Your task to perform on an android device: turn notification dots off Image 0: 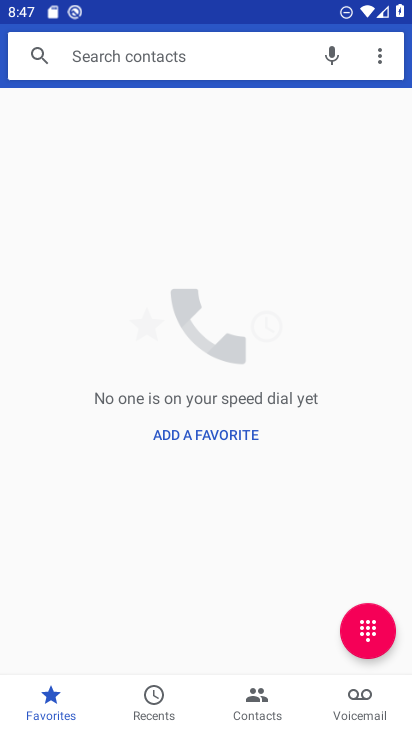
Step 0: press home button
Your task to perform on an android device: turn notification dots off Image 1: 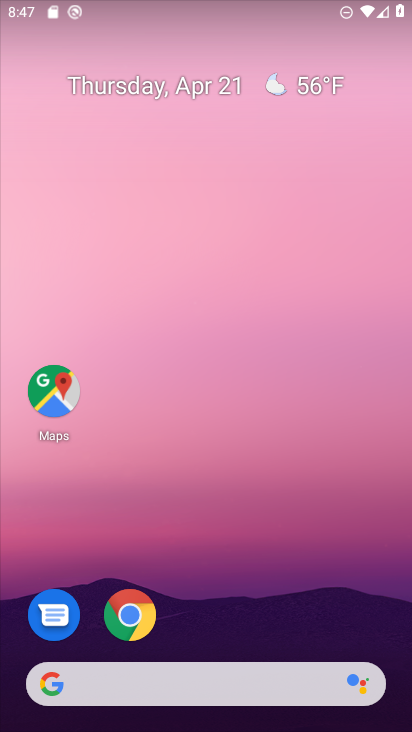
Step 1: drag from (296, 380) to (300, 128)
Your task to perform on an android device: turn notification dots off Image 2: 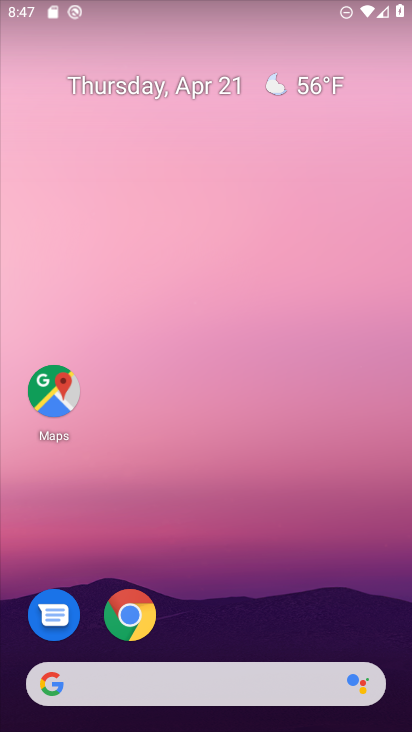
Step 2: drag from (325, 415) to (302, 6)
Your task to perform on an android device: turn notification dots off Image 3: 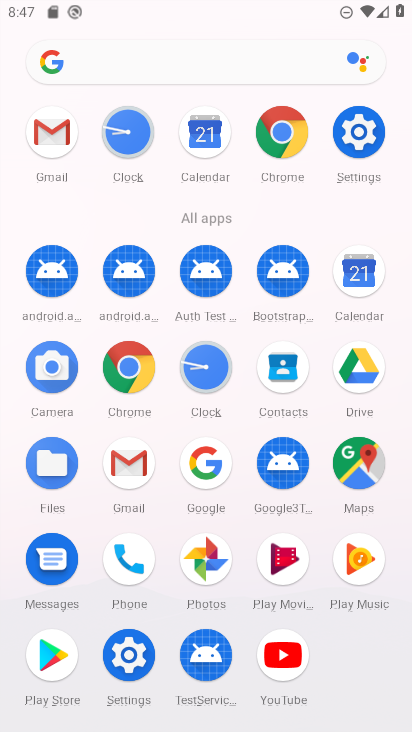
Step 3: click (382, 126)
Your task to perform on an android device: turn notification dots off Image 4: 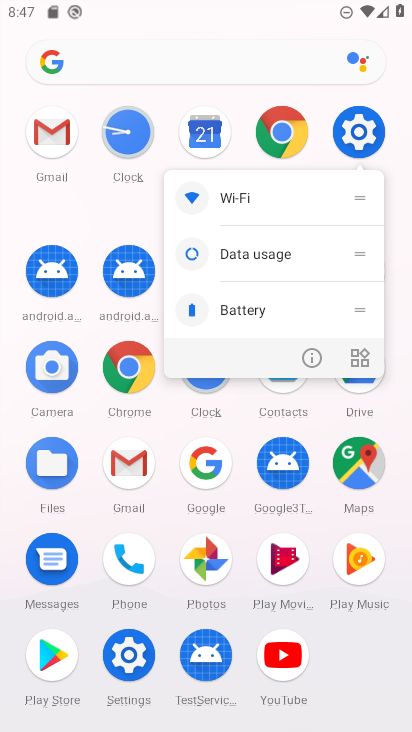
Step 4: click (382, 126)
Your task to perform on an android device: turn notification dots off Image 5: 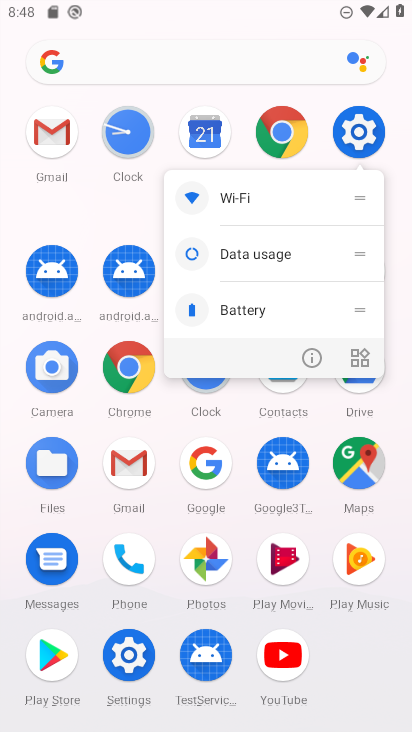
Step 5: click (356, 138)
Your task to perform on an android device: turn notification dots off Image 6: 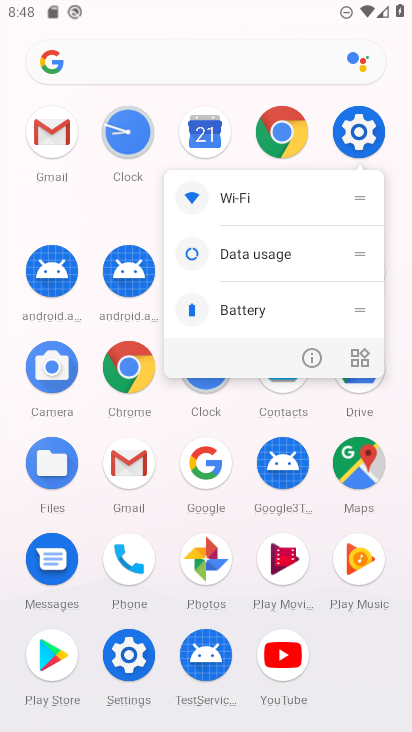
Step 6: click (365, 139)
Your task to perform on an android device: turn notification dots off Image 7: 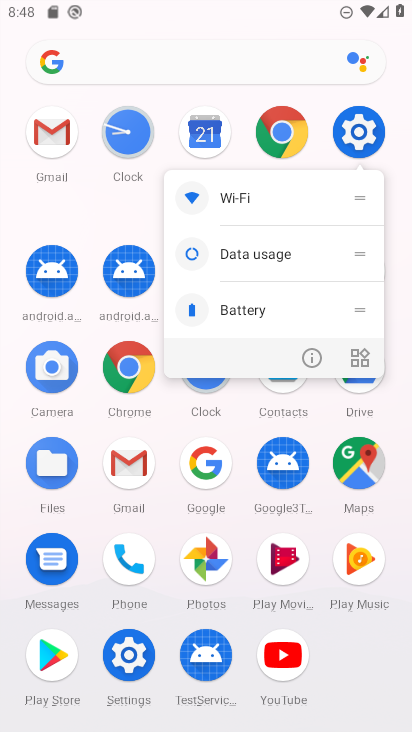
Step 7: click (365, 138)
Your task to perform on an android device: turn notification dots off Image 8: 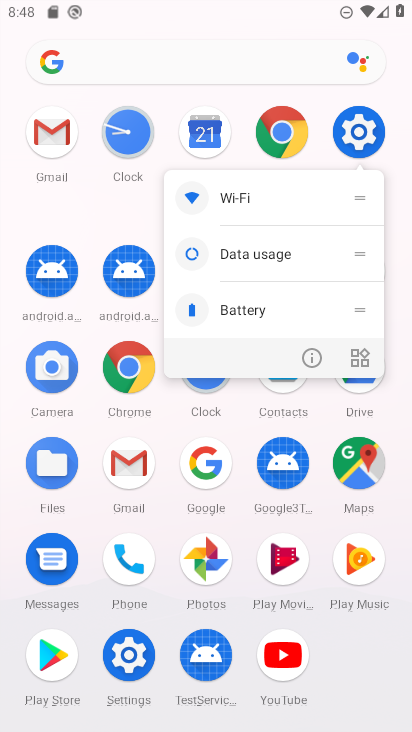
Step 8: click (365, 138)
Your task to perform on an android device: turn notification dots off Image 9: 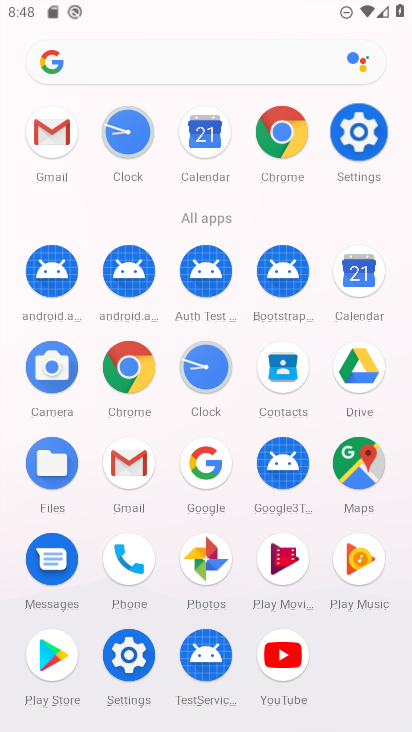
Step 9: click (365, 138)
Your task to perform on an android device: turn notification dots off Image 10: 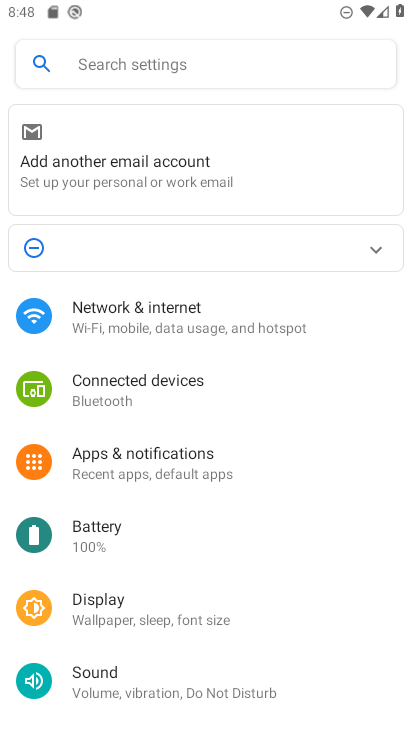
Step 10: drag from (256, 591) to (221, 217)
Your task to perform on an android device: turn notification dots off Image 11: 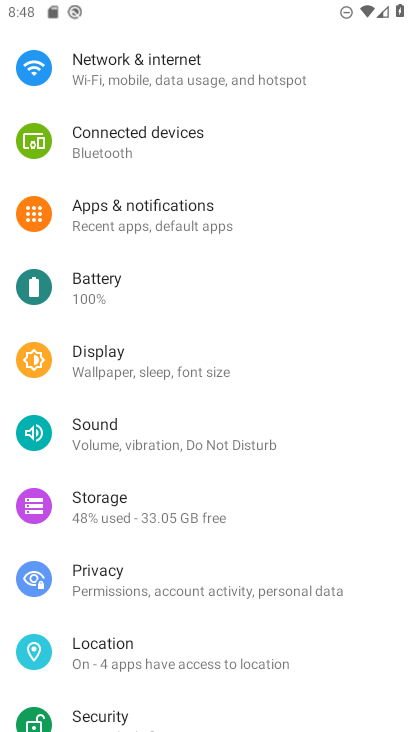
Step 11: click (146, 221)
Your task to perform on an android device: turn notification dots off Image 12: 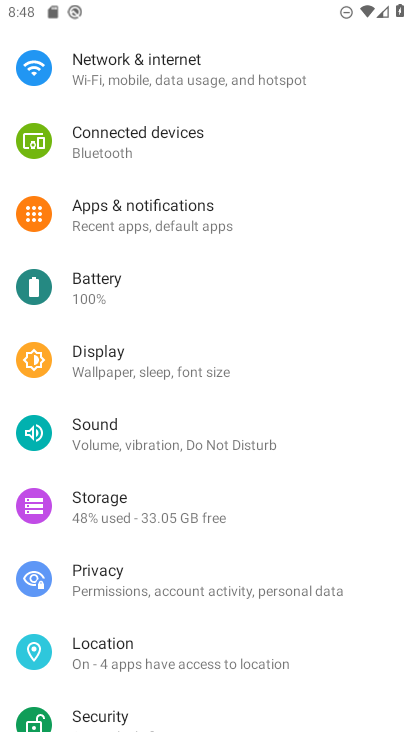
Step 12: click (146, 220)
Your task to perform on an android device: turn notification dots off Image 13: 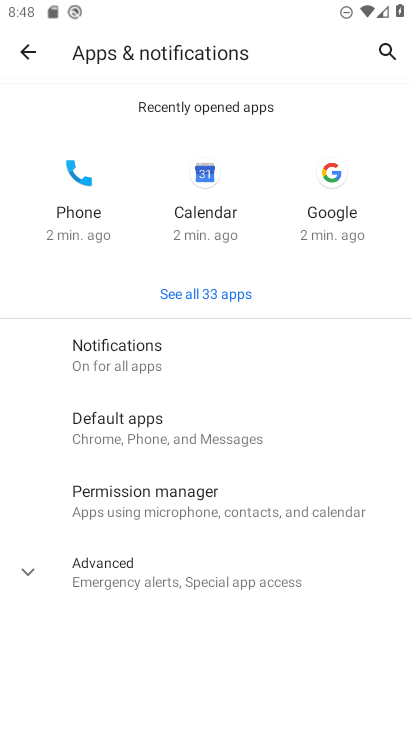
Step 13: click (122, 356)
Your task to perform on an android device: turn notification dots off Image 14: 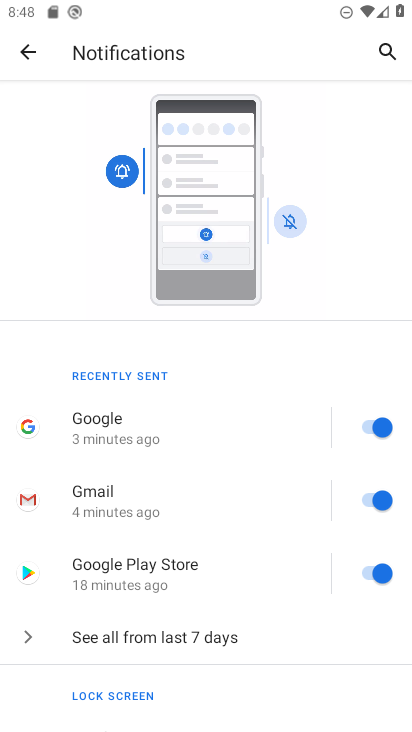
Step 14: drag from (213, 599) to (267, 223)
Your task to perform on an android device: turn notification dots off Image 15: 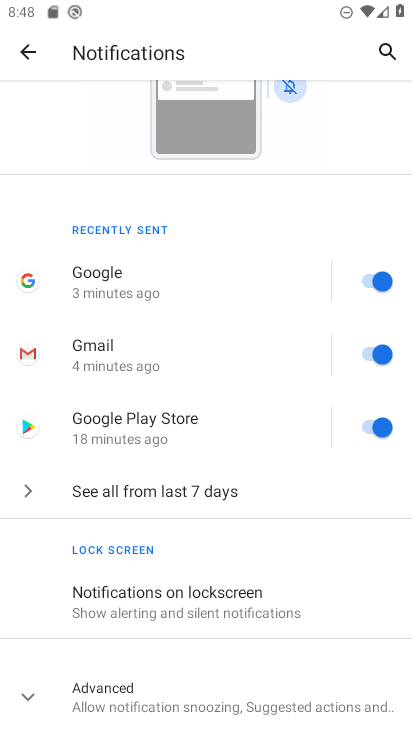
Step 15: drag from (200, 596) to (143, 200)
Your task to perform on an android device: turn notification dots off Image 16: 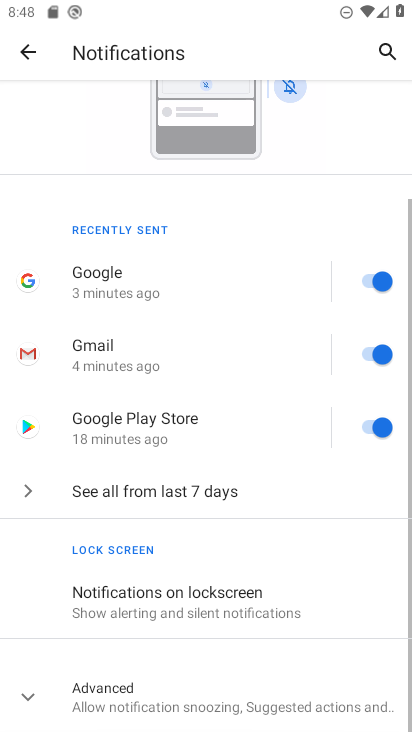
Step 16: click (138, 695)
Your task to perform on an android device: turn notification dots off Image 17: 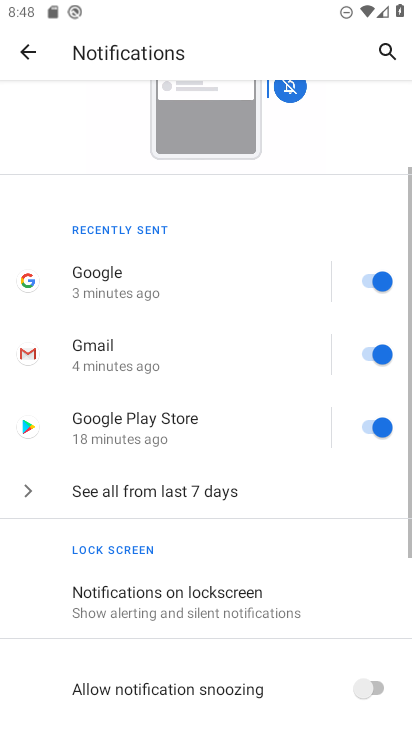
Step 17: drag from (147, 604) to (111, 272)
Your task to perform on an android device: turn notification dots off Image 18: 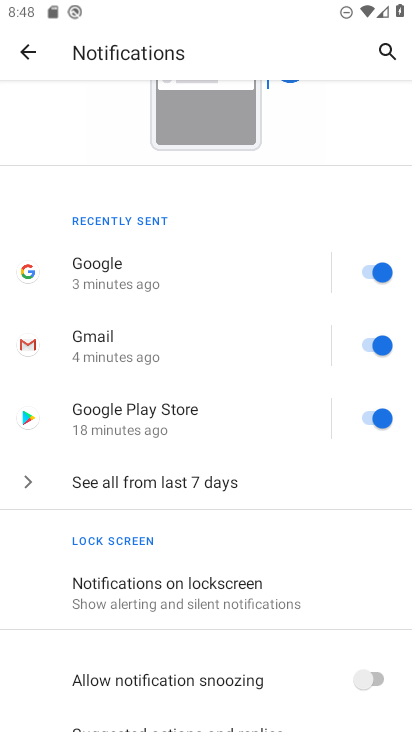
Step 18: drag from (191, 627) to (266, 301)
Your task to perform on an android device: turn notification dots off Image 19: 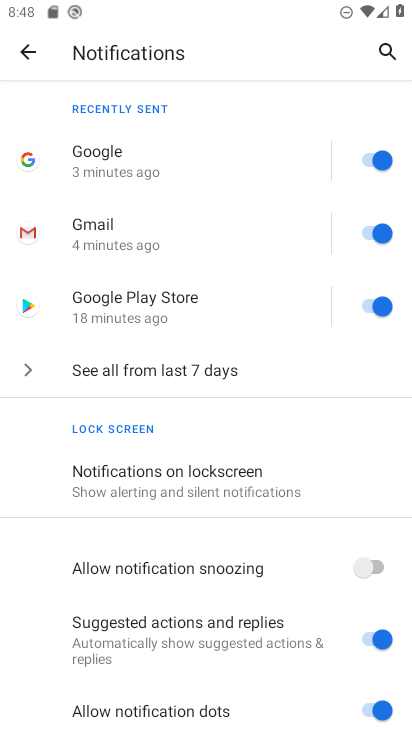
Step 19: drag from (215, 707) to (231, 284)
Your task to perform on an android device: turn notification dots off Image 20: 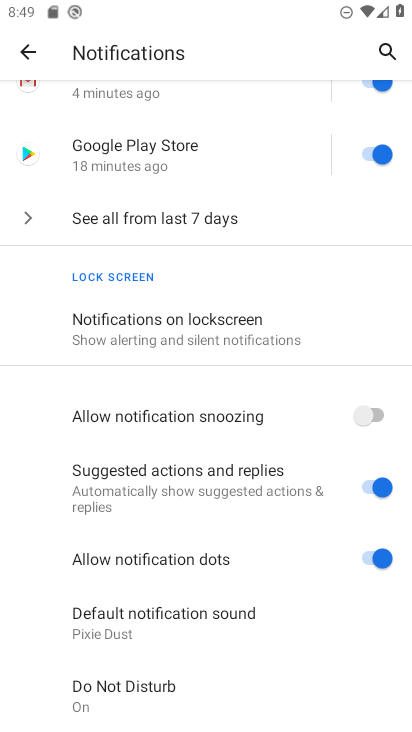
Step 20: click (376, 562)
Your task to perform on an android device: turn notification dots off Image 21: 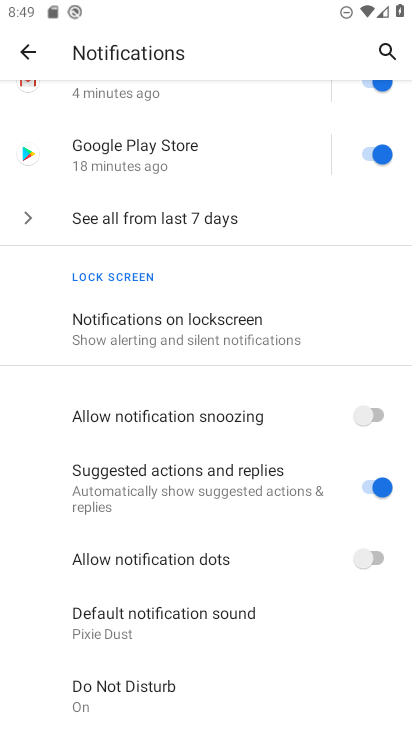
Step 21: task complete